Your task to perform on an android device: Search for Mexican restaurants on Maps Image 0: 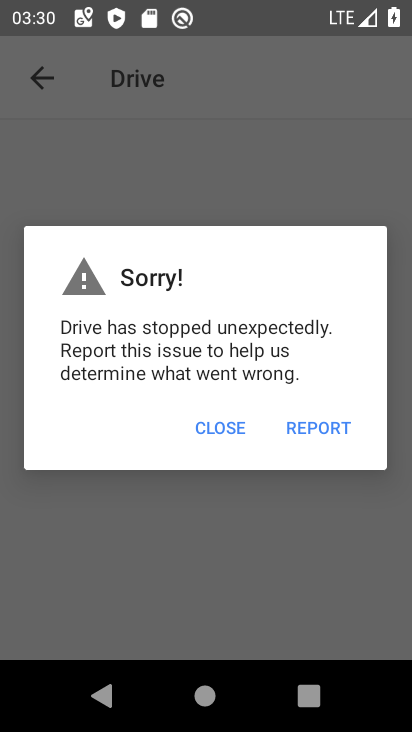
Step 0: press home button
Your task to perform on an android device: Search for Mexican restaurants on Maps Image 1: 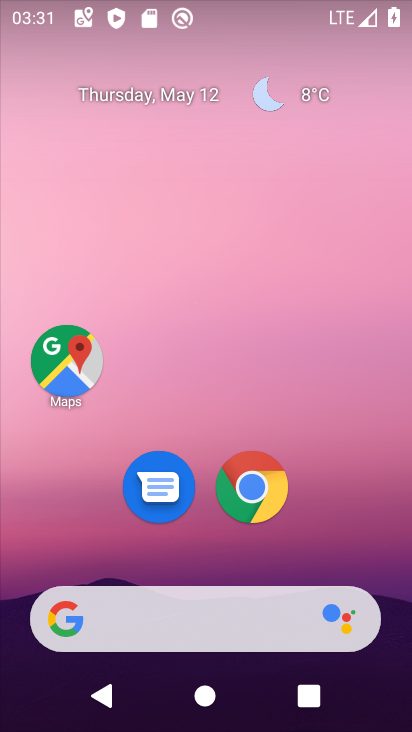
Step 1: click (76, 365)
Your task to perform on an android device: Search for Mexican restaurants on Maps Image 2: 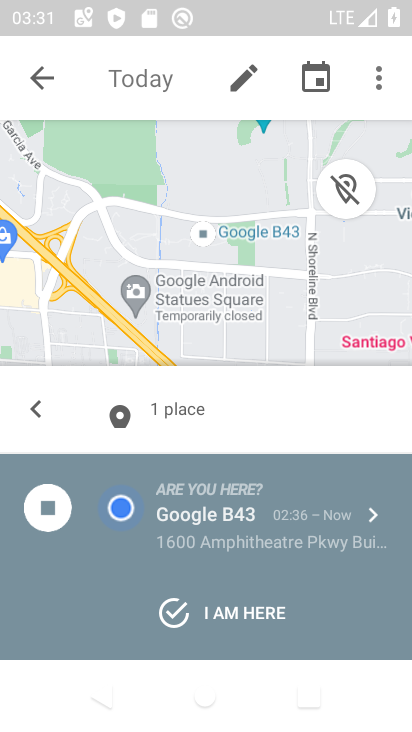
Step 2: click (33, 68)
Your task to perform on an android device: Search for Mexican restaurants on Maps Image 3: 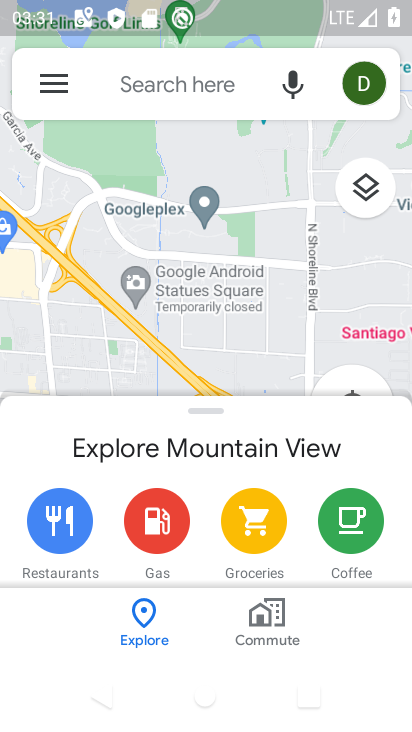
Step 3: click (160, 86)
Your task to perform on an android device: Search for Mexican restaurants on Maps Image 4: 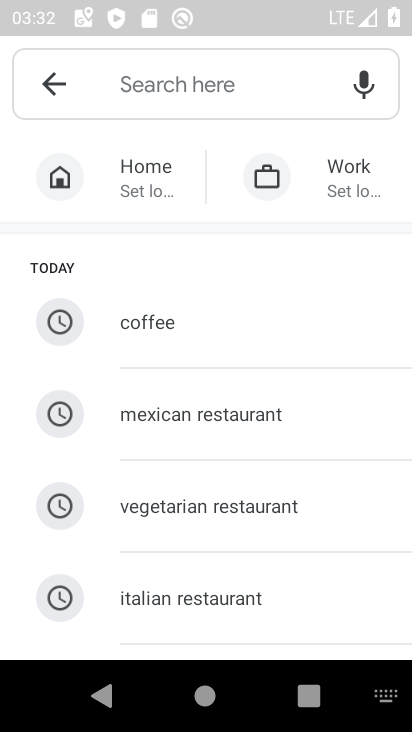
Step 4: type "Mexican restaurants"
Your task to perform on an android device: Search for Mexican restaurants on Maps Image 5: 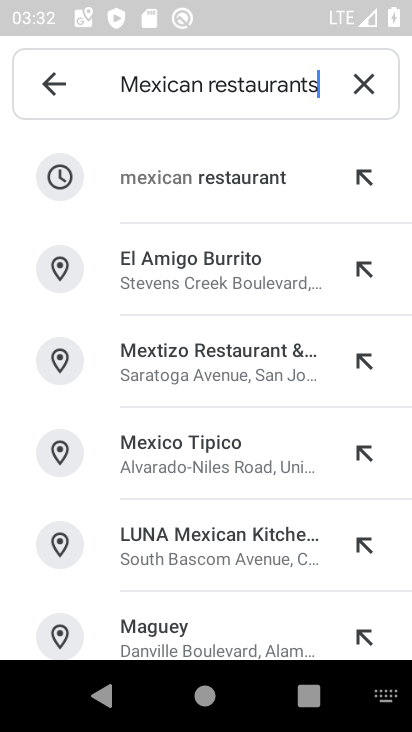
Step 5: press enter
Your task to perform on an android device: Search for Mexican restaurants on Maps Image 6: 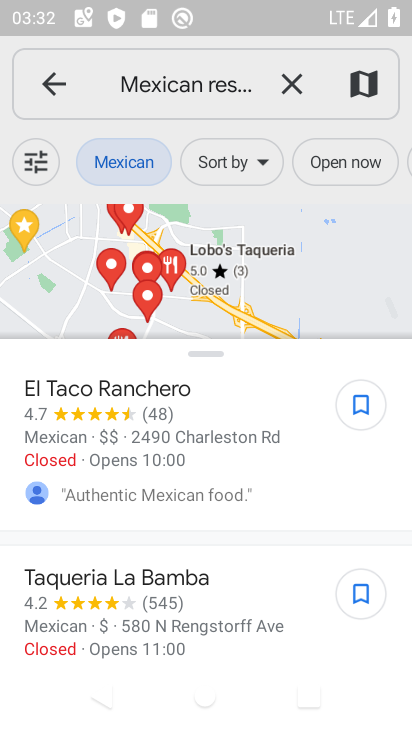
Step 6: task complete